Your task to perform on an android device: change the clock display to analog Image 0: 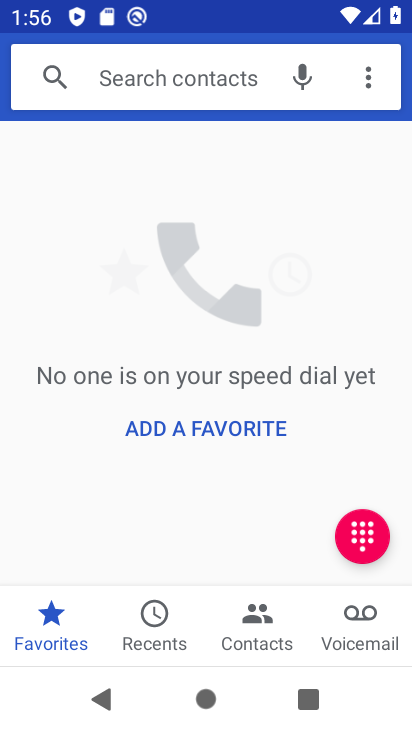
Step 0: press home button
Your task to perform on an android device: change the clock display to analog Image 1: 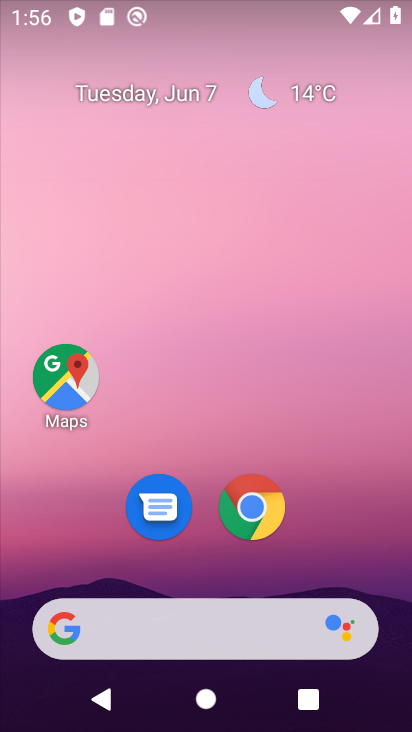
Step 1: drag from (352, 444) to (296, 70)
Your task to perform on an android device: change the clock display to analog Image 2: 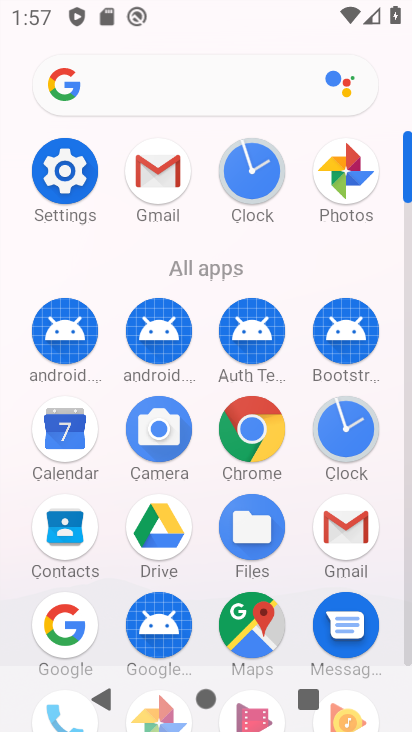
Step 2: click (77, 168)
Your task to perform on an android device: change the clock display to analog Image 3: 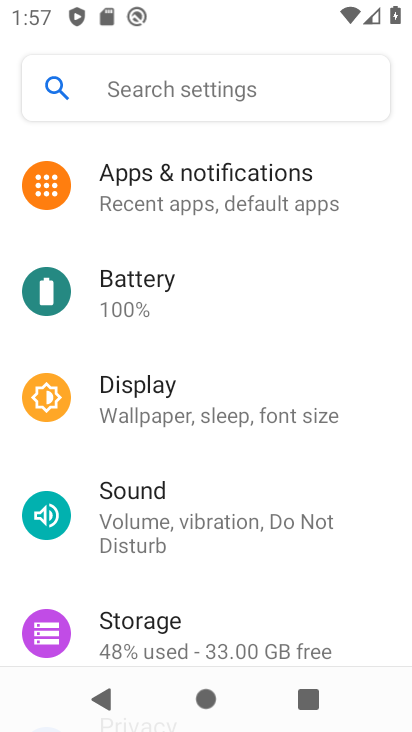
Step 3: press home button
Your task to perform on an android device: change the clock display to analog Image 4: 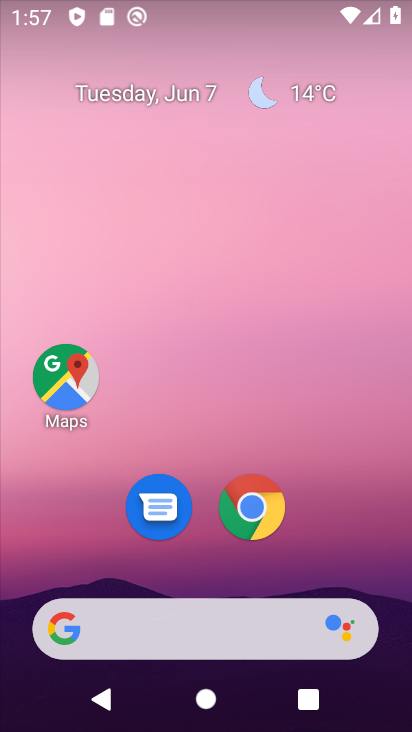
Step 4: drag from (323, 546) to (334, 179)
Your task to perform on an android device: change the clock display to analog Image 5: 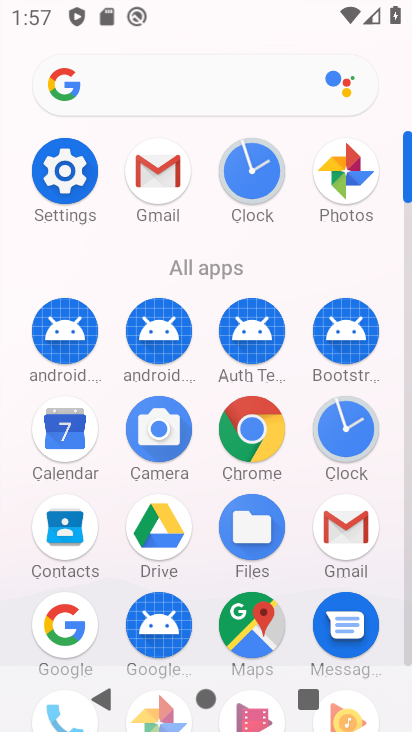
Step 5: click (347, 421)
Your task to perform on an android device: change the clock display to analog Image 6: 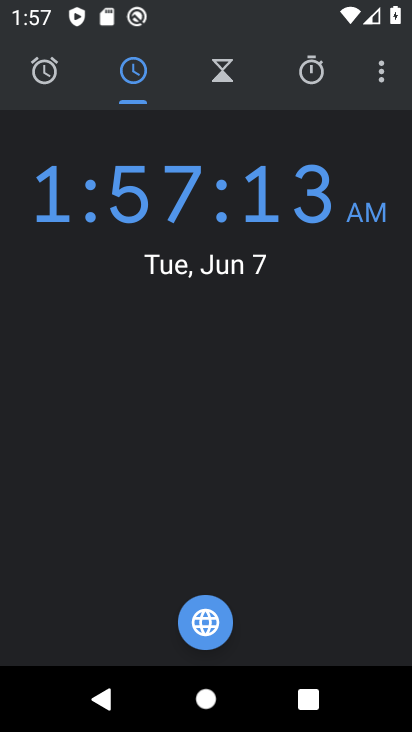
Step 6: click (374, 79)
Your task to perform on an android device: change the clock display to analog Image 7: 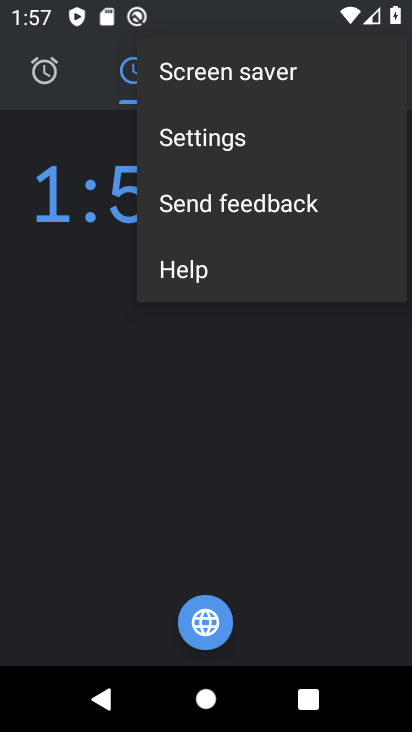
Step 7: click (256, 130)
Your task to perform on an android device: change the clock display to analog Image 8: 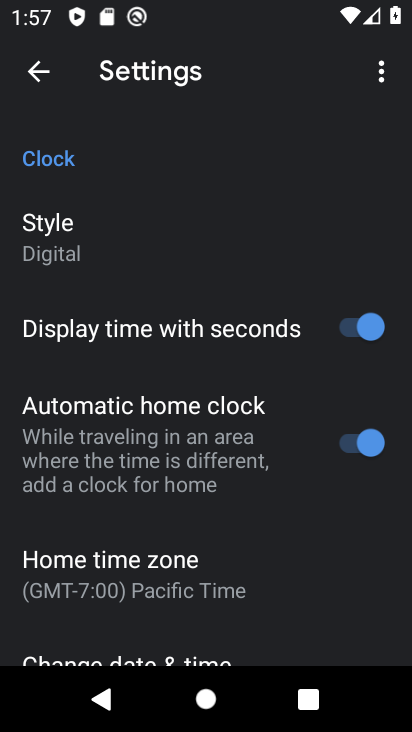
Step 8: click (101, 239)
Your task to perform on an android device: change the clock display to analog Image 9: 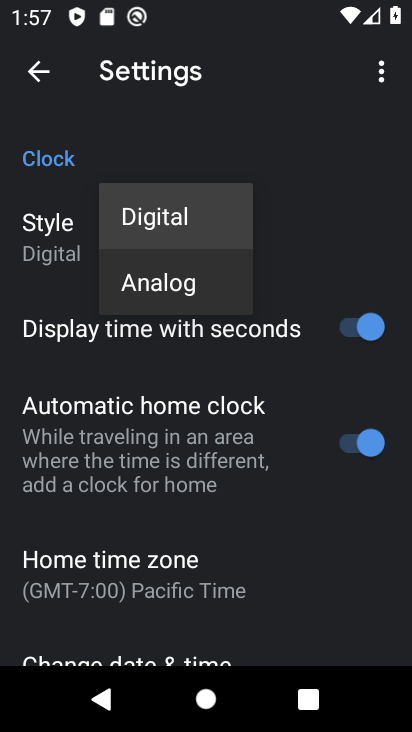
Step 9: click (153, 277)
Your task to perform on an android device: change the clock display to analog Image 10: 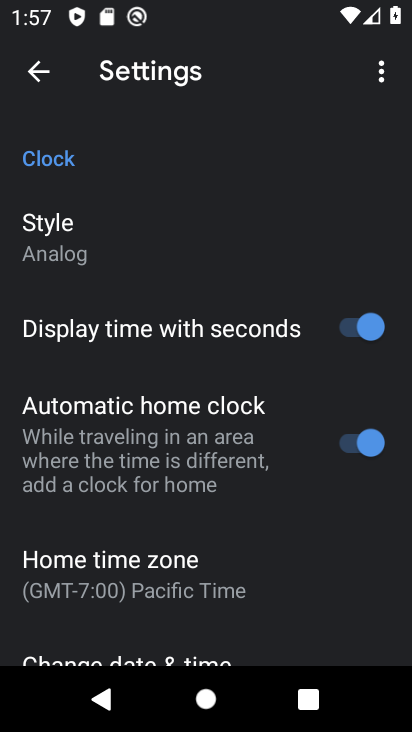
Step 10: task complete